Your task to perform on an android device: uninstall "Contacts" Image 0: 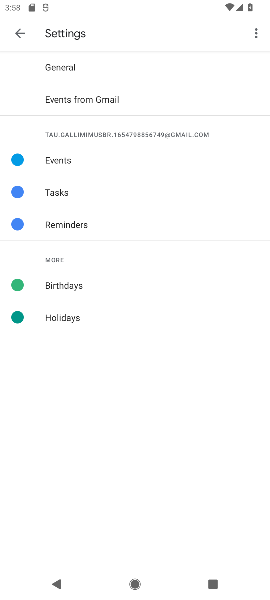
Step 0: press home button
Your task to perform on an android device: uninstall "Contacts" Image 1: 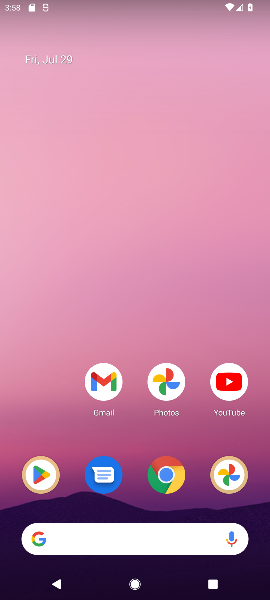
Step 1: click (42, 470)
Your task to perform on an android device: uninstall "Contacts" Image 2: 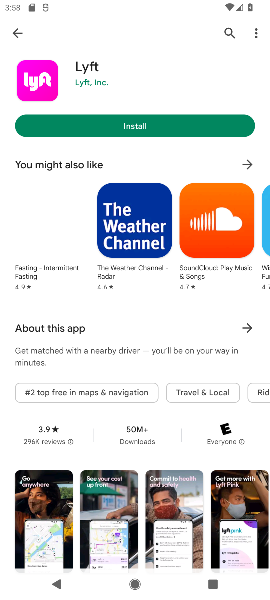
Step 2: click (13, 32)
Your task to perform on an android device: uninstall "Contacts" Image 3: 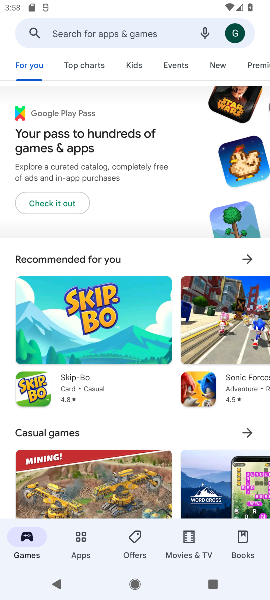
Step 3: click (67, 26)
Your task to perform on an android device: uninstall "Contacts" Image 4: 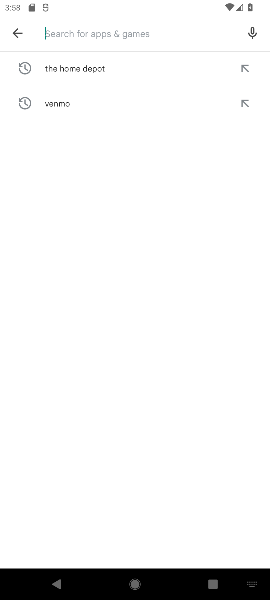
Step 4: type "Contact"
Your task to perform on an android device: uninstall "Contacts" Image 5: 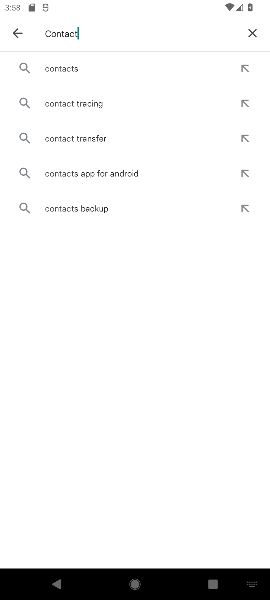
Step 5: click (53, 70)
Your task to perform on an android device: uninstall "Contacts" Image 6: 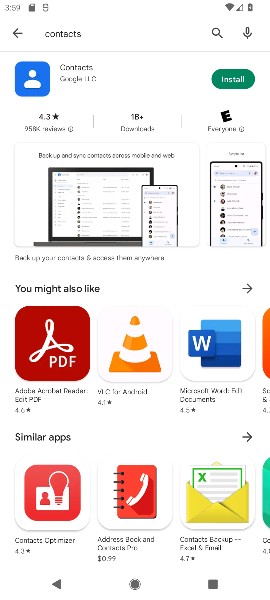
Step 6: task complete